Your task to perform on an android device: see sites visited before in the chrome app Image 0: 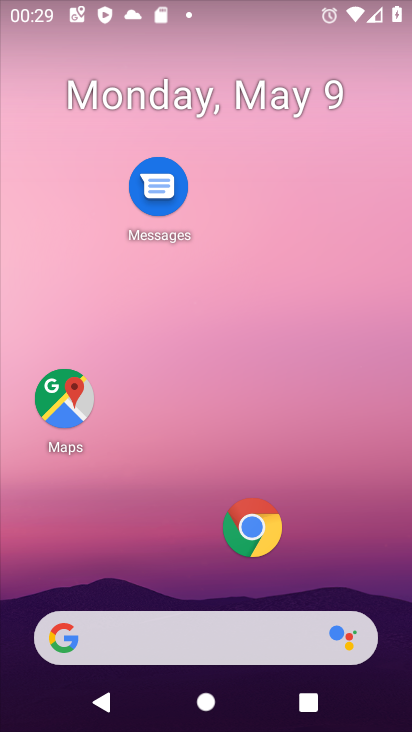
Step 0: drag from (166, 547) to (205, 92)
Your task to perform on an android device: see sites visited before in the chrome app Image 1: 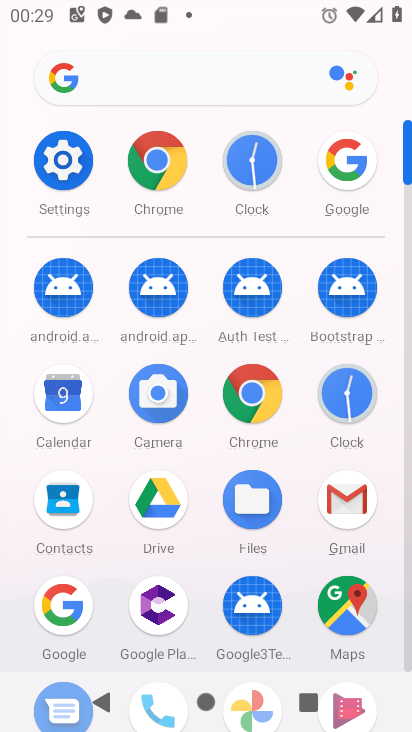
Step 1: click (156, 161)
Your task to perform on an android device: see sites visited before in the chrome app Image 2: 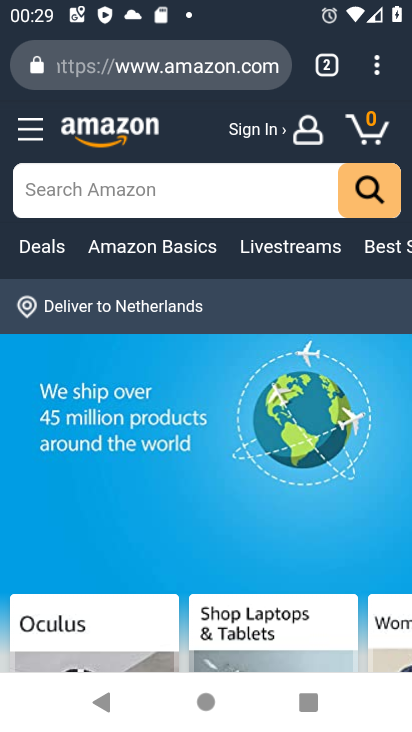
Step 2: click (368, 68)
Your task to perform on an android device: see sites visited before in the chrome app Image 3: 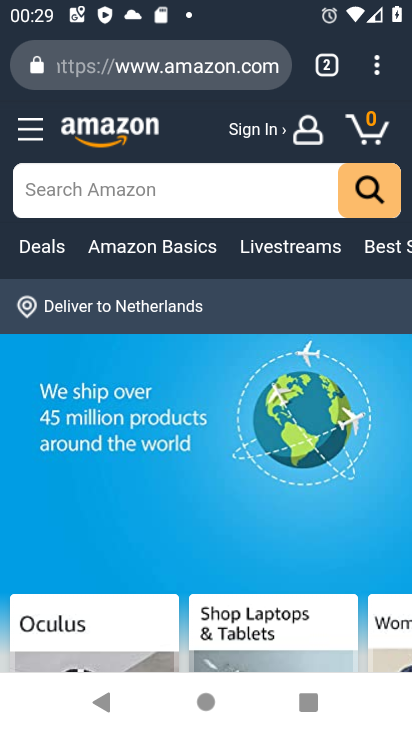
Step 3: click (367, 61)
Your task to perform on an android device: see sites visited before in the chrome app Image 4: 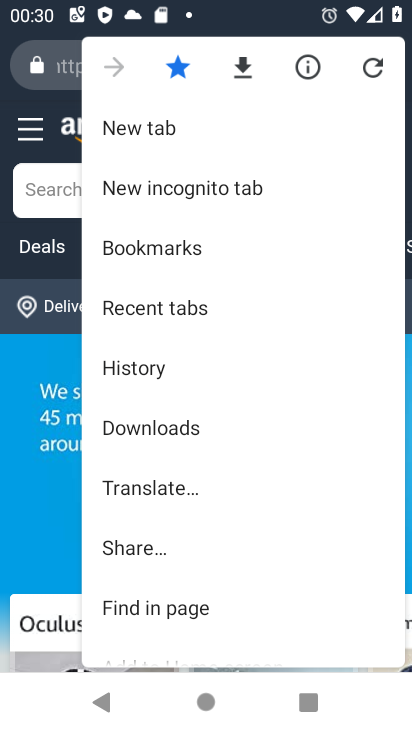
Step 4: click (163, 371)
Your task to perform on an android device: see sites visited before in the chrome app Image 5: 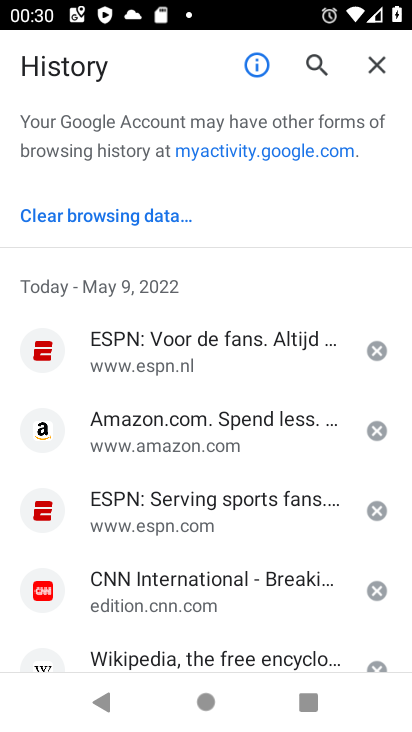
Step 5: task complete